Your task to perform on an android device: Go to eBay Image 0: 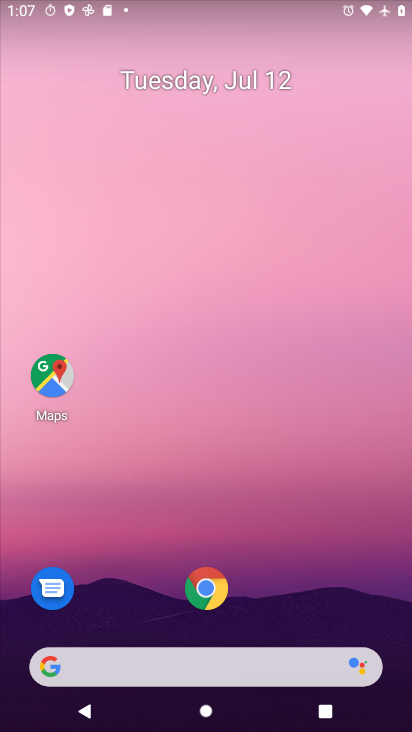
Step 0: press home button
Your task to perform on an android device: Go to eBay Image 1: 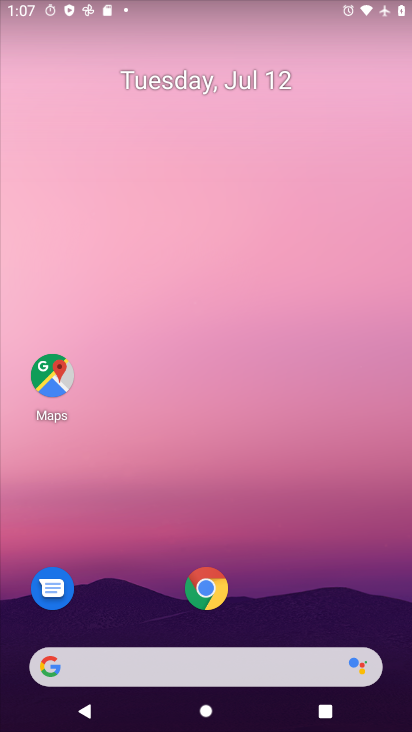
Step 1: click (209, 593)
Your task to perform on an android device: Go to eBay Image 2: 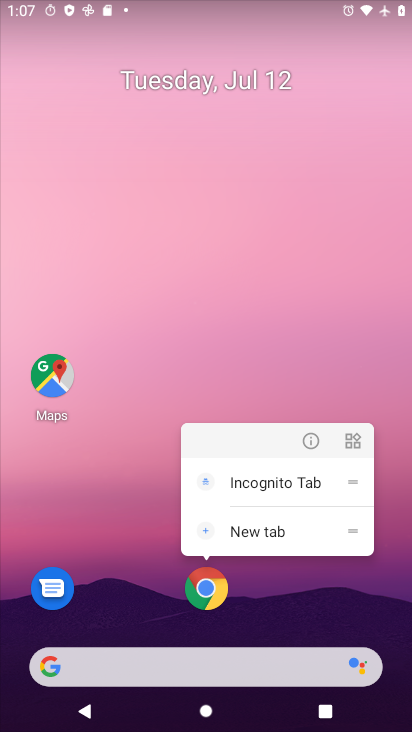
Step 2: click (202, 596)
Your task to perform on an android device: Go to eBay Image 3: 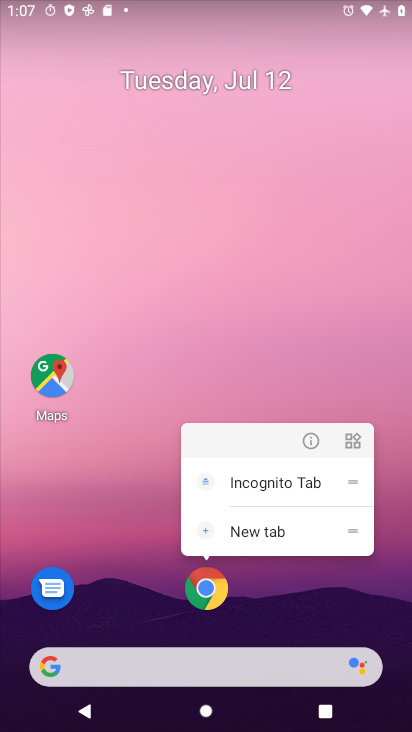
Step 3: click (208, 590)
Your task to perform on an android device: Go to eBay Image 4: 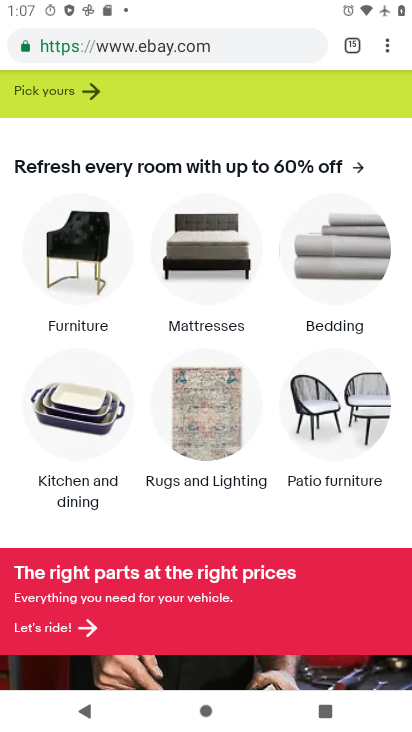
Step 4: task complete